Your task to perform on an android device: Go to internet settings Image 0: 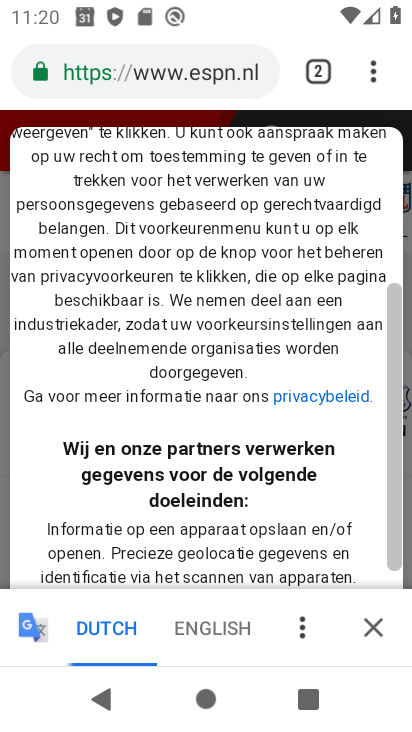
Step 0: press home button
Your task to perform on an android device: Go to internet settings Image 1: 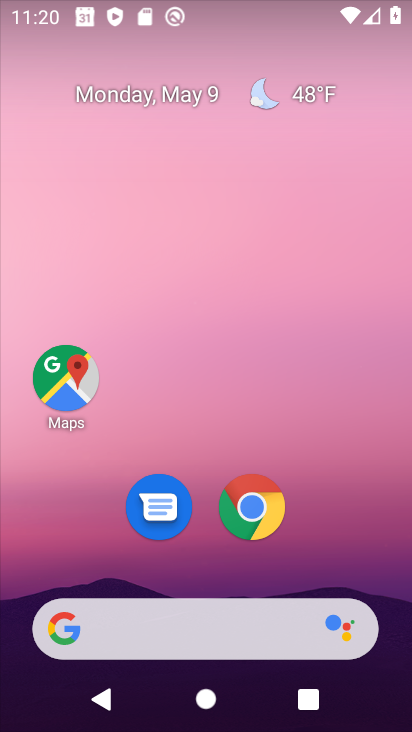
Step 1: drag from (329, 556) to (284, 152)
Your task to perform on an android device: Go to internet settings Image 2: 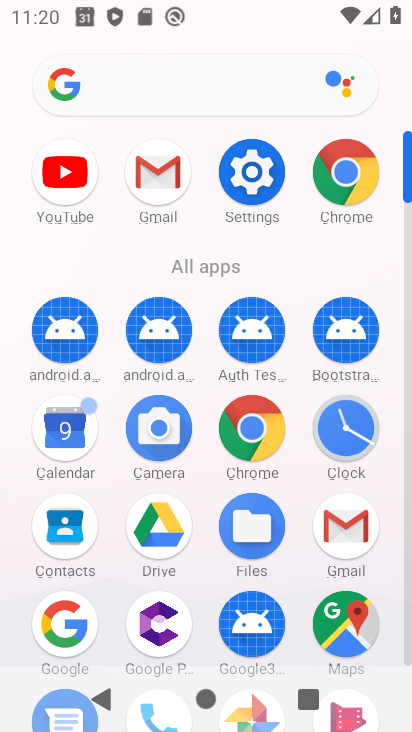
Step 2: click (246, 169)
Your task to perform on an android device: Go to internet settings Image 3: 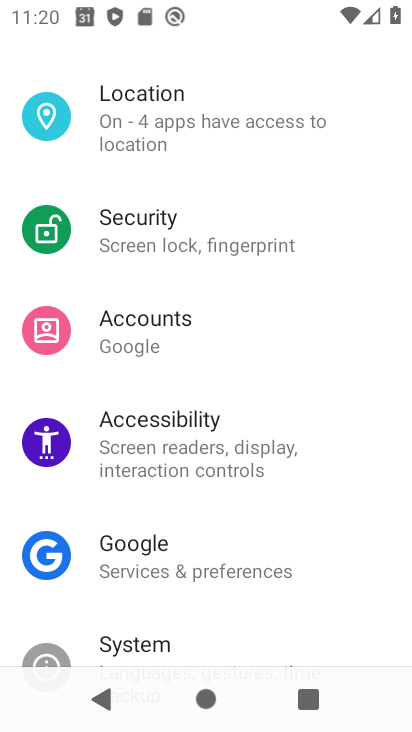
Step 3: drag from (211, 173) to (209, 601)
Your task to perform on an android device: Go to internet settings Image 4: 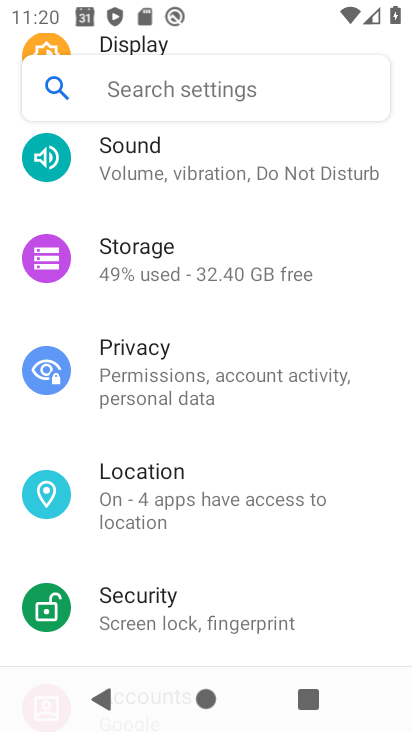
Step 4: drag from (207, 222) to (168, 686)
Your task to perform on an android device: Go to internet settings Image 5: 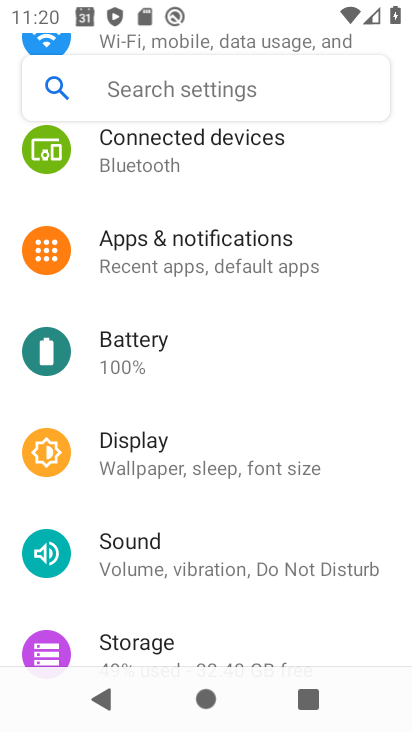
Step 5: drag from (194, 189) to (180, 592)
Your task to perform on an android device: Go to internet settings Image 6: 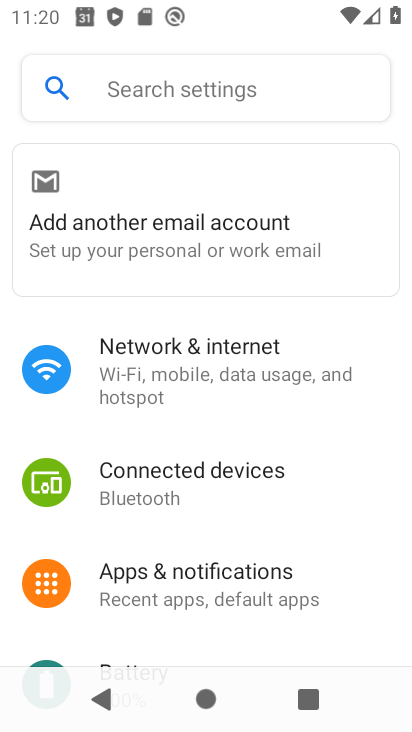
Step 6: click (211, 360)
Your task to perform on an android device: Go to internet settings Image 7: 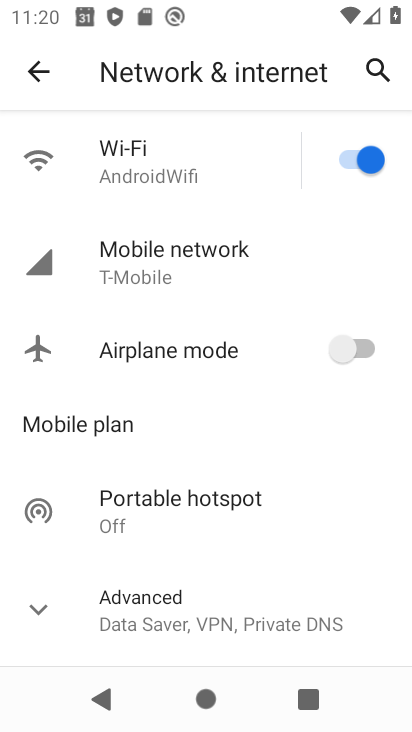
Step 7: task complete